Your task to perform on an android device: turn off sleep mode Image 0: 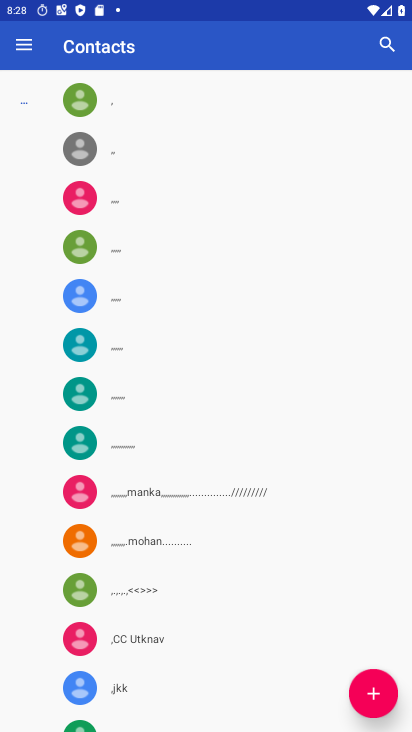
Step 0: drag from (240, 612) to (281, 188)
Your task to perform on an android device: turn off sleep mode Image 1: 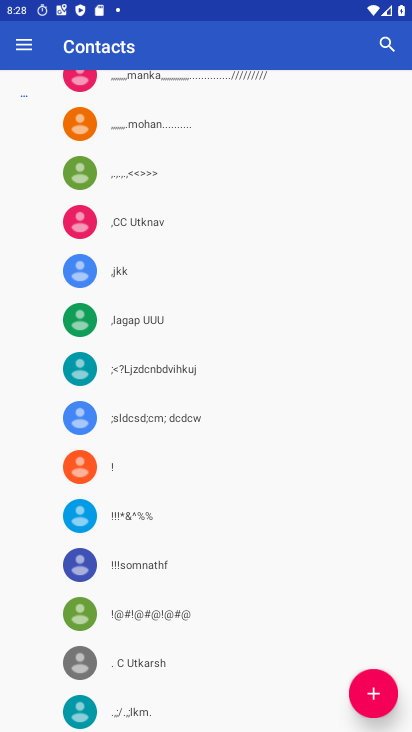
Step 1: press home button
Your task to perform on an android device: turn off sleep mode Image 2: 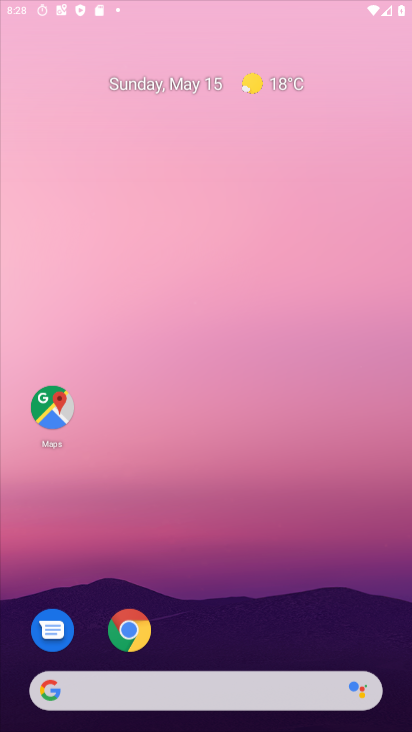
Step 2: drag from (211, 672) to (243, 29)
Your task to perform on an android device: turn off sleep mode Image 3: 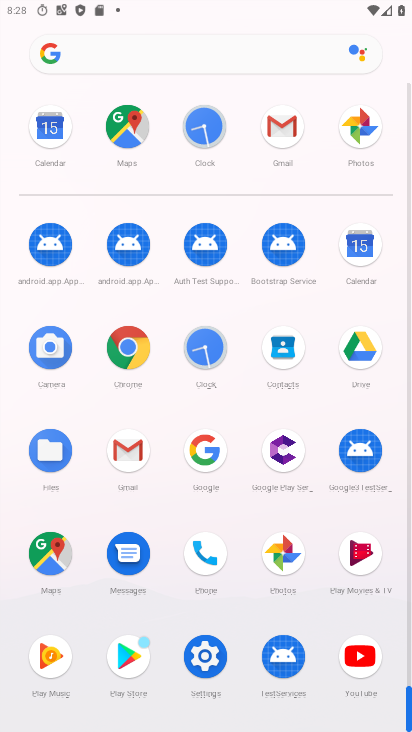
Step 3: click (215, 649)
Your task to perform on an android device: turn off sleep mode Image 4: 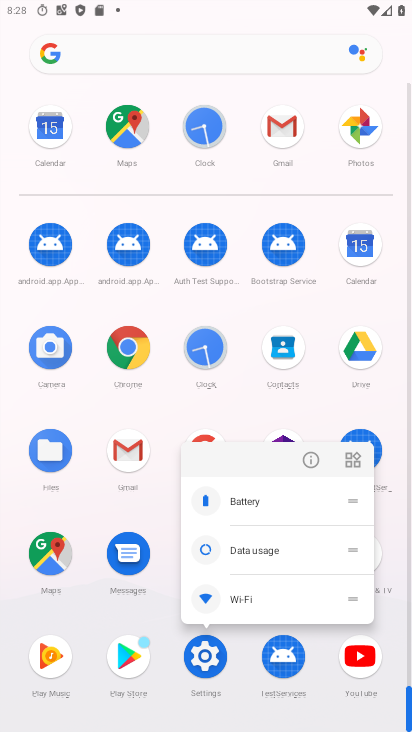
Step 4: click (308, 455)
Your task to perform on an android device: turn off sleep mode Image 5: 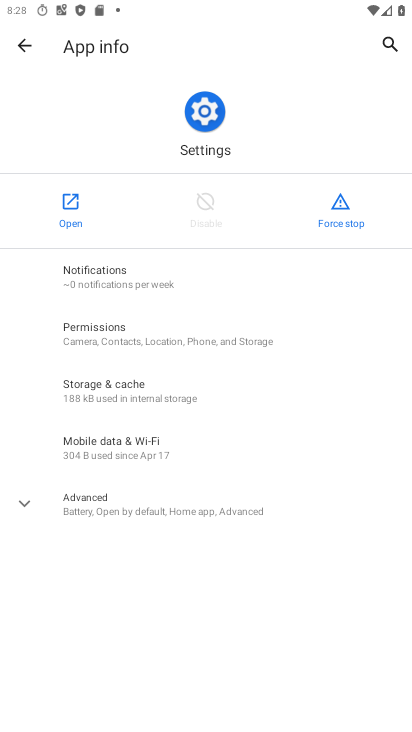
Step 5: click (64, 187)
Your task to perform on an android device: turn off sleep mode Image 6: 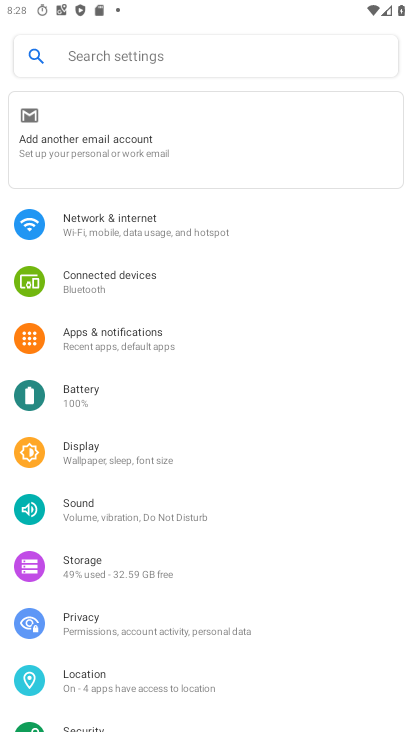
Step 6: click (121, 442)
Your task to perform on an android device: turn off sleep mode Image 7: 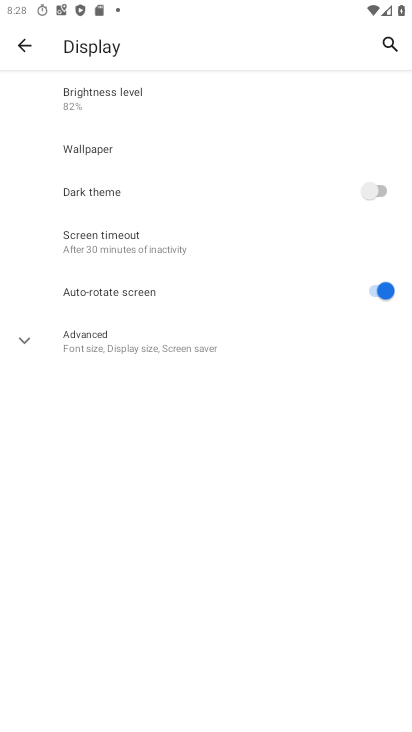
Step 7: click (221, 253)
Your task to perform on an android device: turn off sleep mode Image 8: 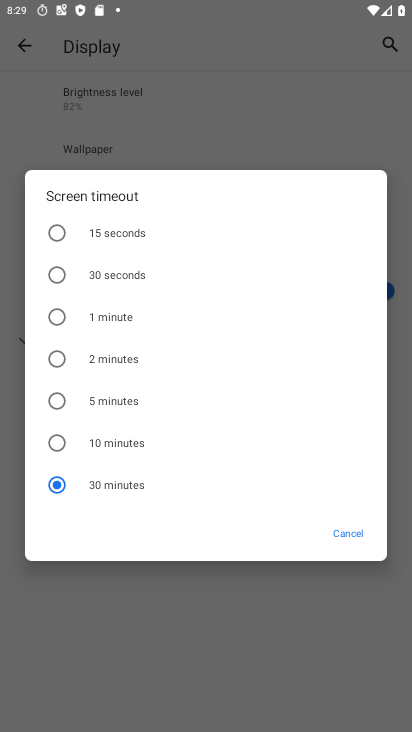
Step 8: click (43, 276)
Your task to perform on an android device: turn off sleep mode Image 9: 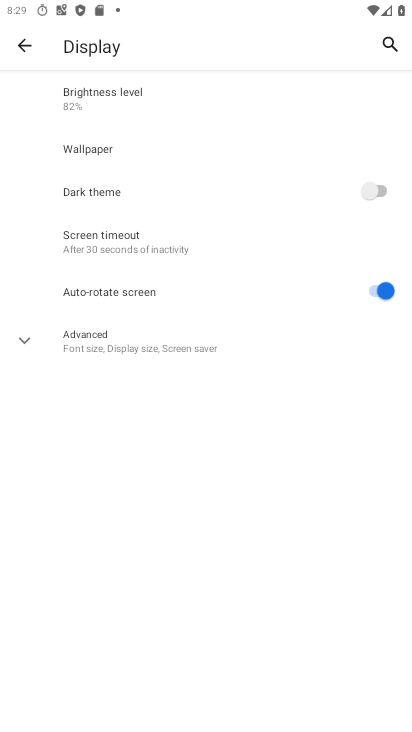
Step 9: task complete